Your task to perform on an android device: toggle data saver in the chrome app Image 0: 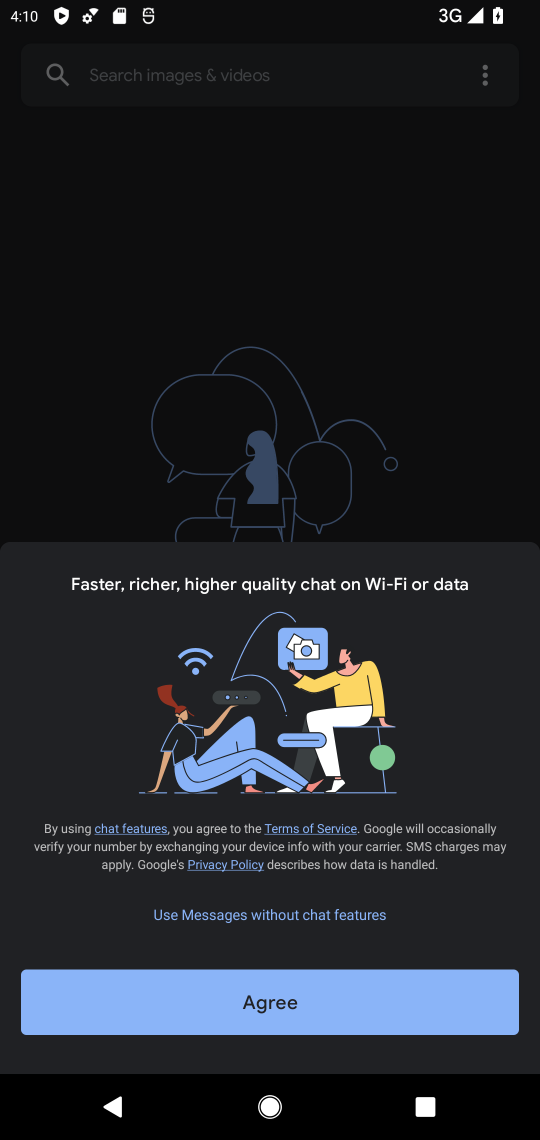
Step 0: press home button
Your task to perform on an android device: toggle data saver in the chrome app Image 1: 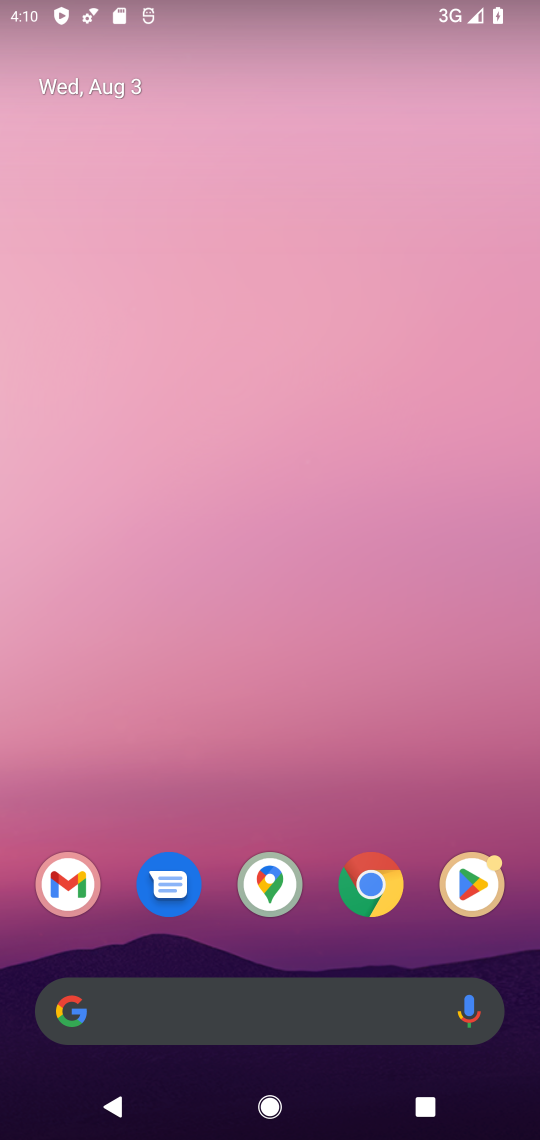
Step 1: click (386, 859)
Your task to perform on an android device: toggle data saver in the chrome app Image 2: 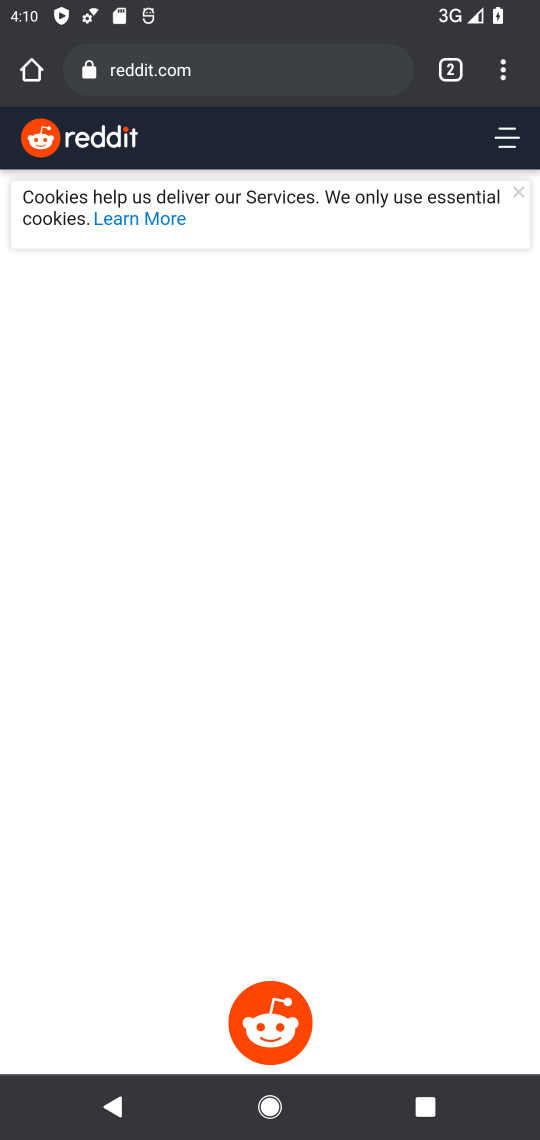
Step 2: click (502, 83)
Your task to perform on an android device: toggle data saver in the chrome app Image 3: 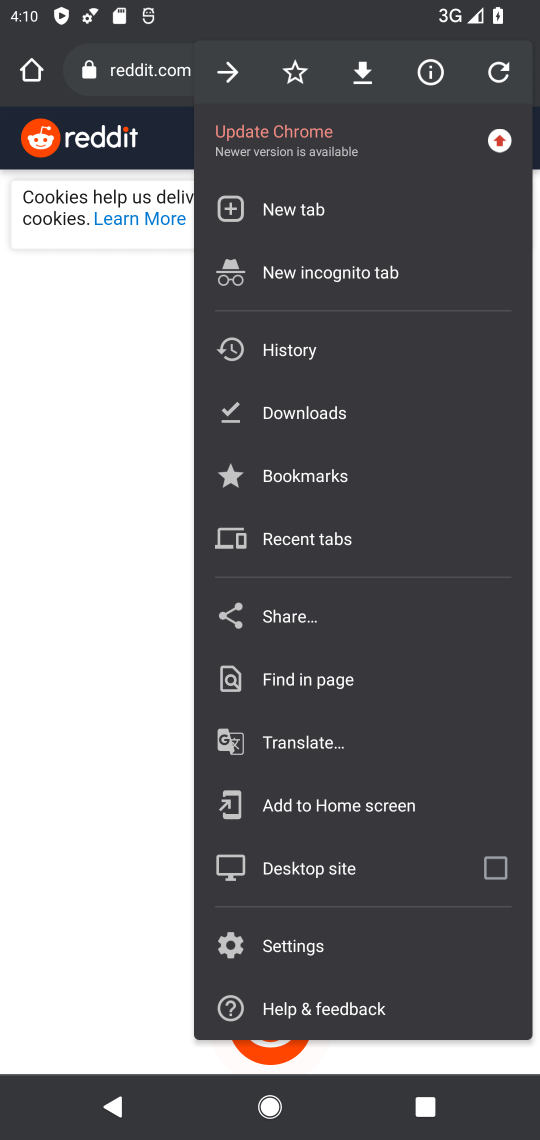
Step 3: click (505, 68)
Your task to perform on an android device: toggle data saver in the chrome app Image 4: 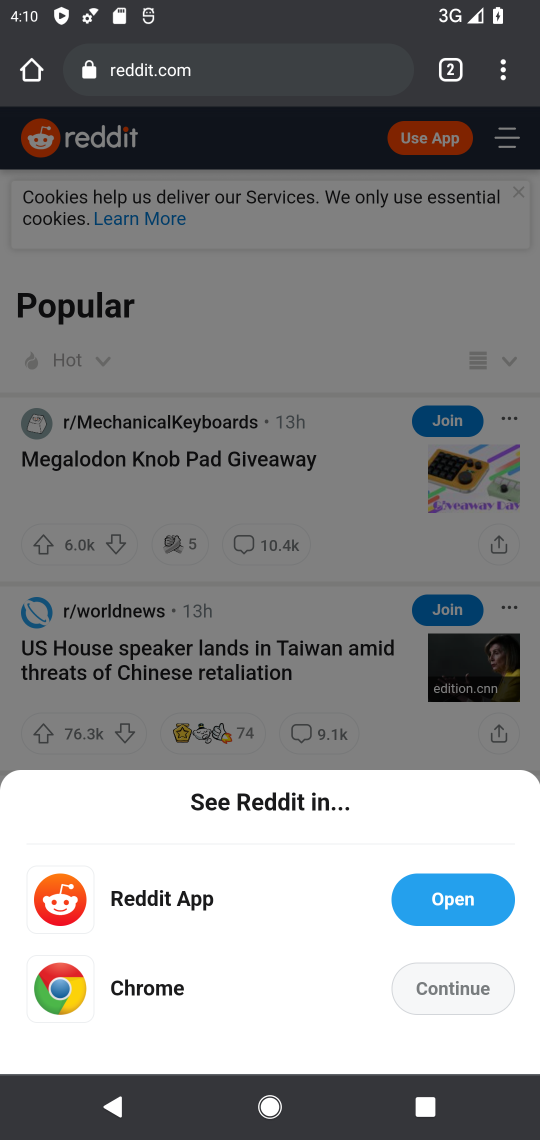
Step 4: click (505, 68)
Your task to perform on an android device: toggle data saver in the chrome app Image 5: 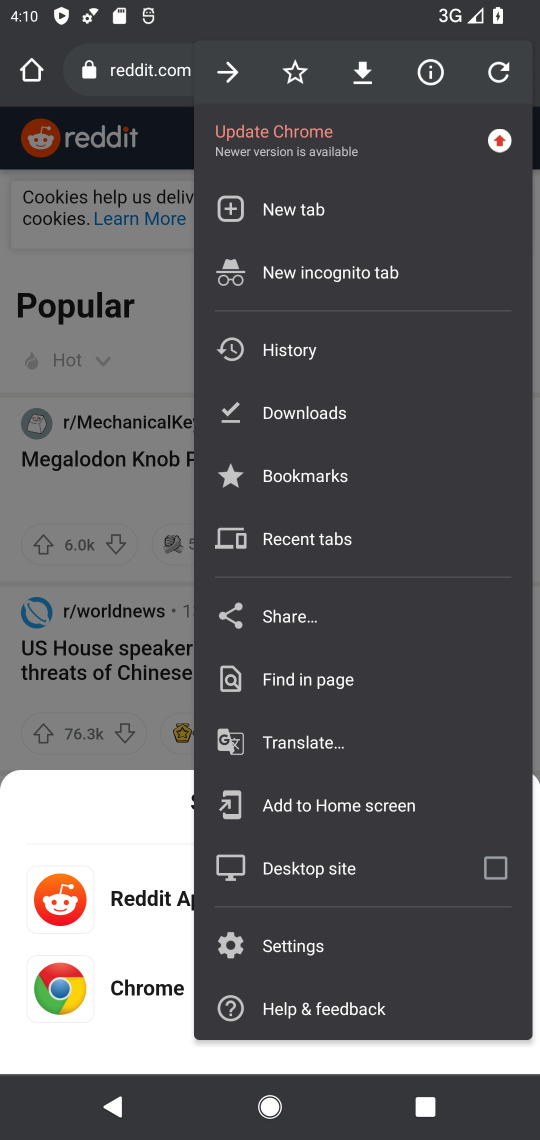
Step 5: click (318, 951)
Your task to perform on an android device: toggle data saver in the chrome app Image 6: 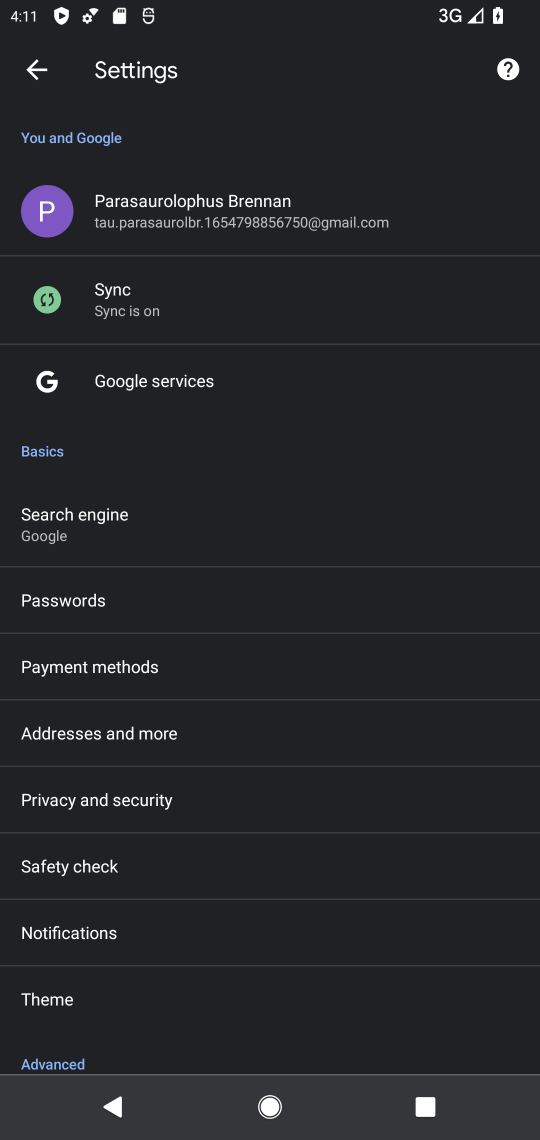
Step 6: task complete